Your task to perform on an android device: Search for pizza restaurants on Maps Image 0: 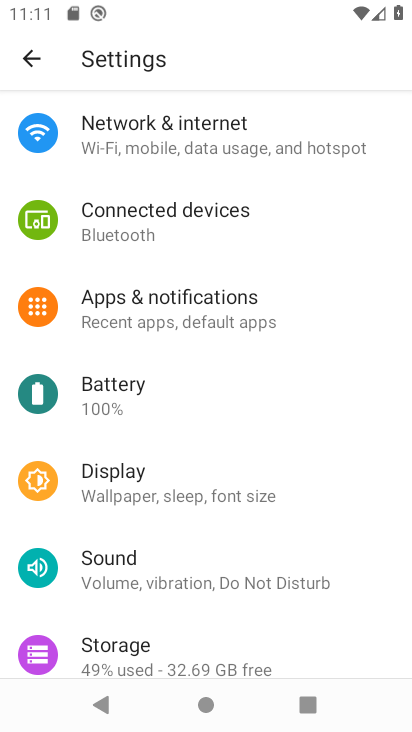
Step 0: press home button
Your task to perform on an android device: Search for pizza restaurants on Maps Image 1: 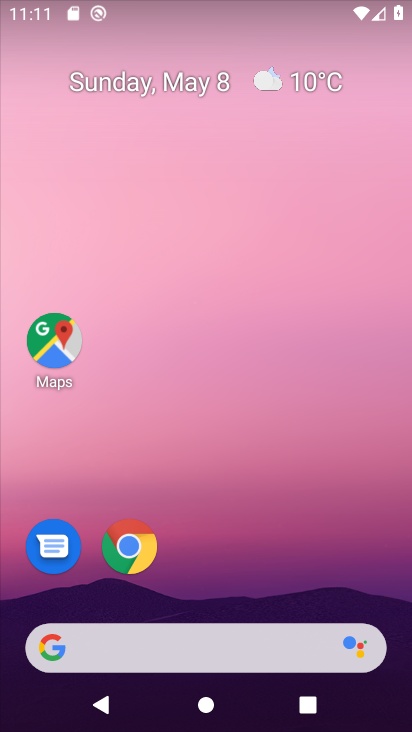
Step 1: click (62, 343)
Your task to perform on an android device: Search for pizza restaurants on Maps Image 2: 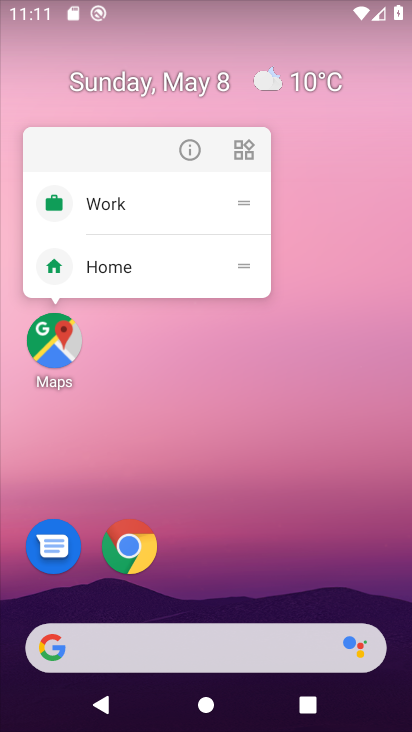
Step 2: click (62, 343)
Your task to perform on an android device: Search for pizza restaurants on Maps Image 3: 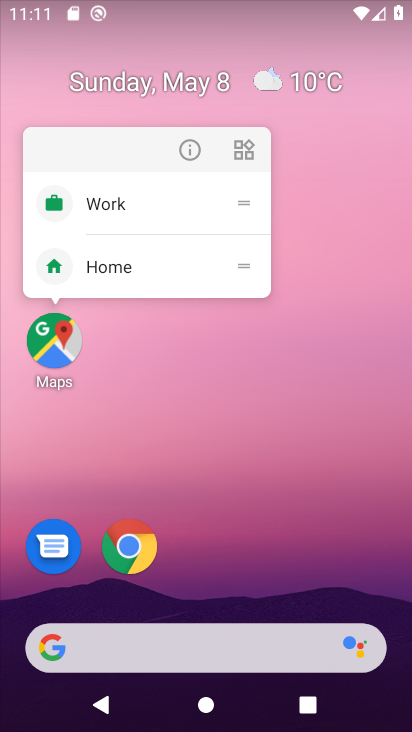
Step 3: click (62, 343)
Your task to perform on an android device: Search for pizza restaurants on Maps Image 4: 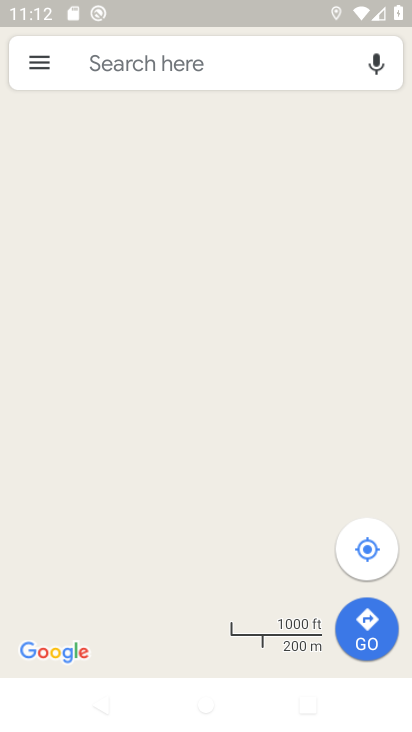
Step 4: click (164, 73)
Your task to perform on an android device: Search for pizza restaurants on Maps Image 5: 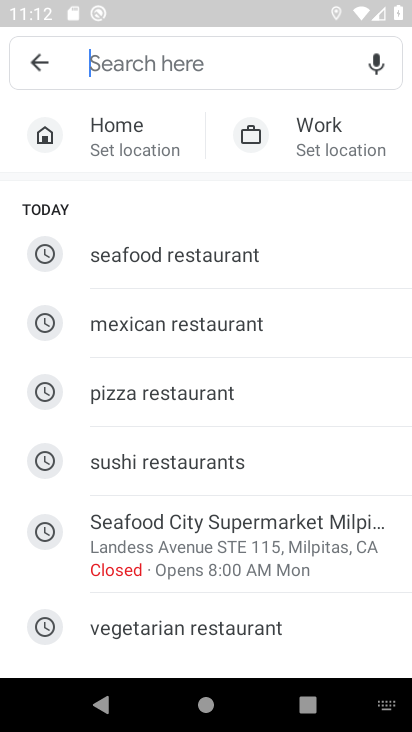
Step 5: type "Pizza restaurants"
Your task to perform on an android device: Search for pizza restaurants on Maps Image 6: 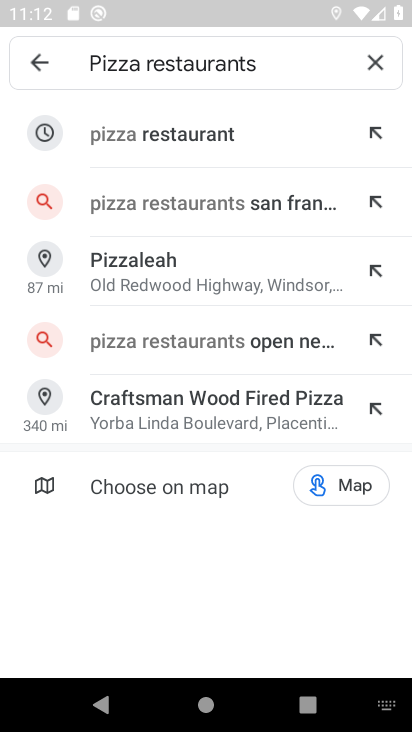
Step 6: click (235, 128)
Your task to perform on an android device: Search for pizza restaurants on Maps Image 7: 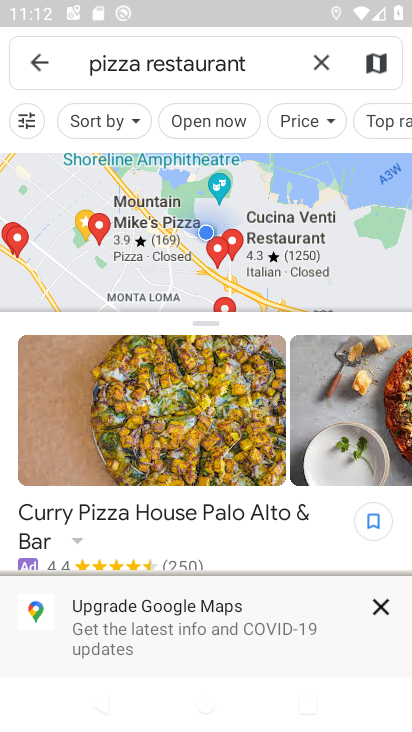
Step 7: click (383, 598)
Your task to perform on an android device: Search for pizza restaurants on Maps Image 8: 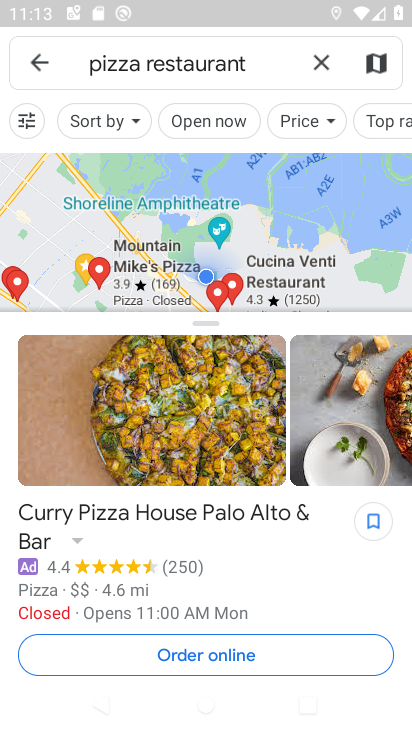
Step 8: task complete